Your task to perform on an android device: toggle wifi Image 0: 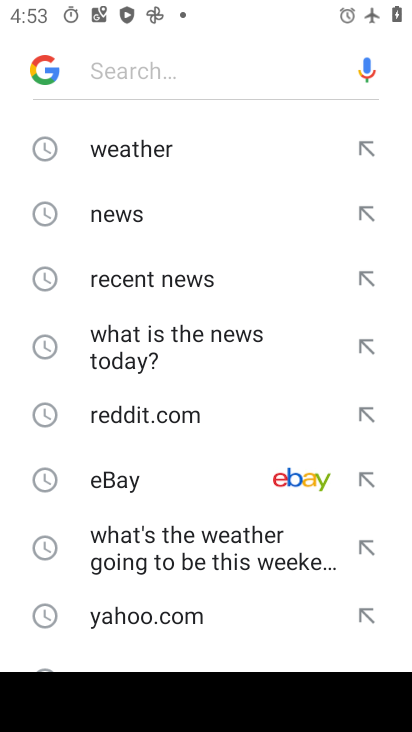
Step 0: press home button
Your task to perform on an android device: toggle wifi Image 1: 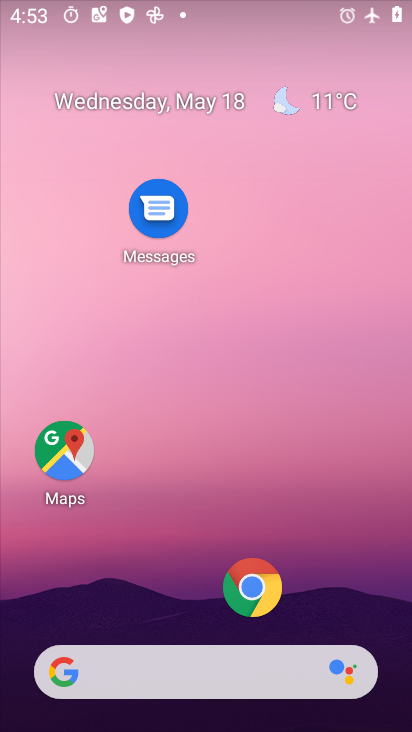
Step 1: drag from (236, 604) to (265, 326)
Your task to perform on an android device: toggle wifi Image 2: 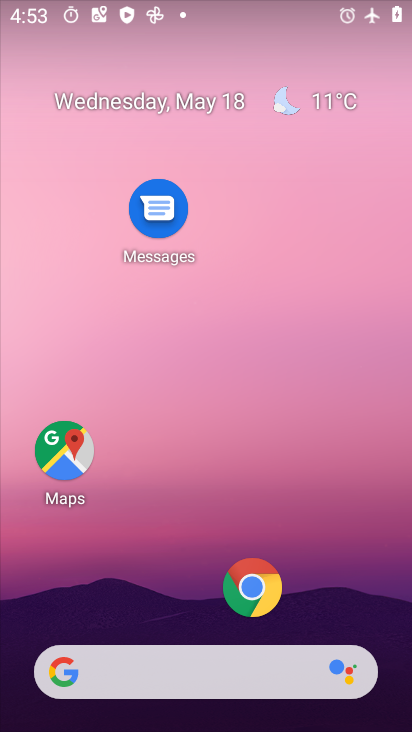
Step 2: drag from (333, 536) to (325, 102)
Your task to perform on an android device: toggle wifi Image 3: 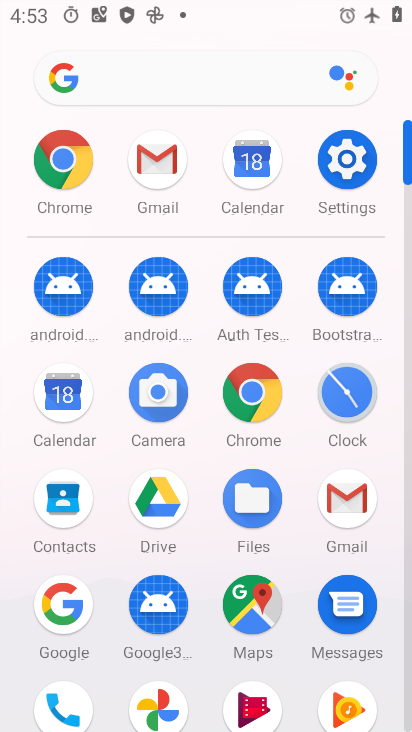
Step 3: click (354, 183)
Your task to perform on an android device: toggle wifi Image 4: 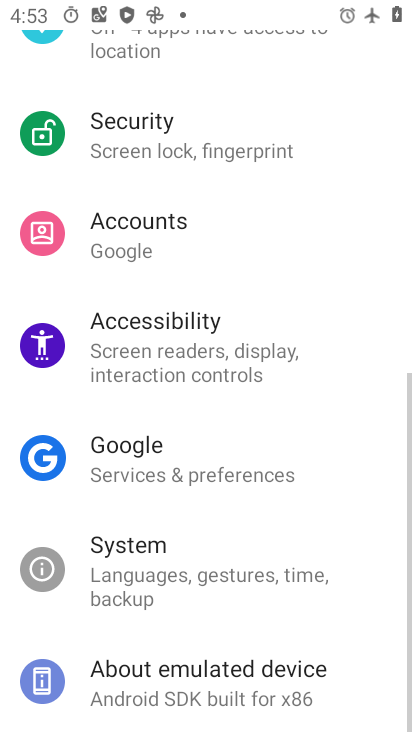
Step 4: drag from (274, 181) to (268, 616)
Your task to perform on an android device: toggle wifi Image 5: 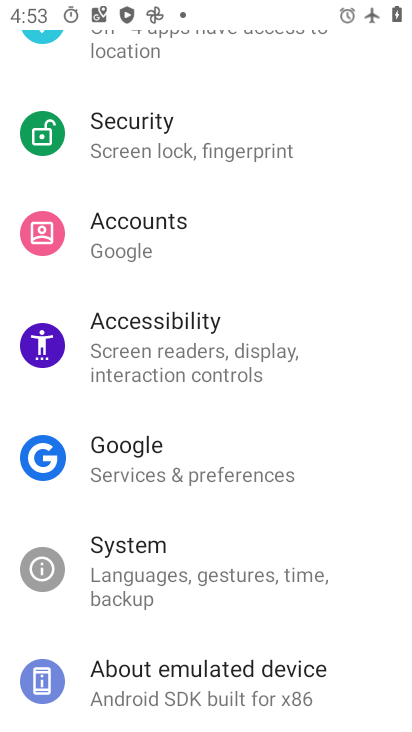
Step 5: drag from (264, 181) to (210, 654)
Your task to perform on an android device: toggle wifi Image 6: 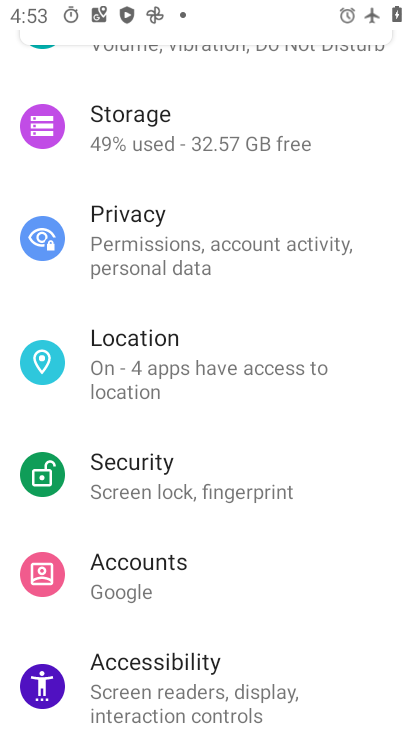
Step 6: drag from (267, 220) to (32, 724)
Your task to perform on an android device: toggle wifi Image 7: 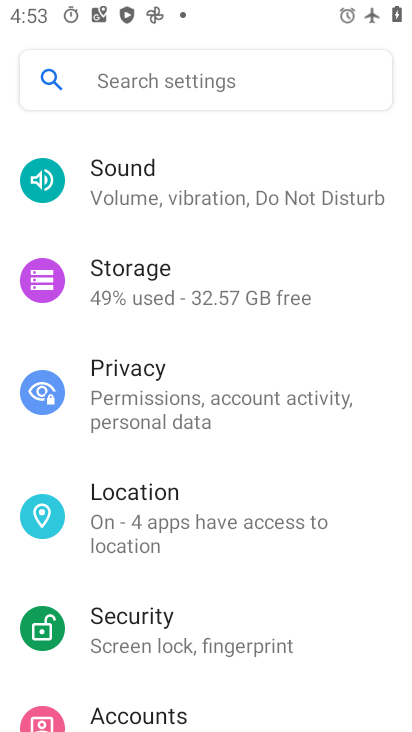
Step 7: drag from (164, 259) to (82, 680)
Your task to perform on an android device: toggle wifi Image 8: 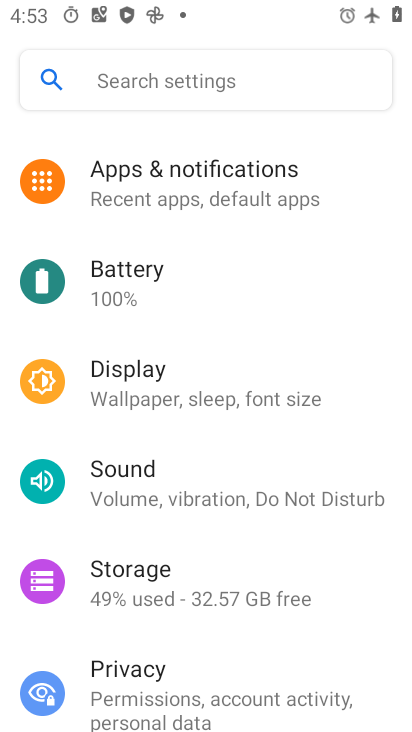
Step 8: drag from (235, 188) to (176, 701)
Your task to perform on an android device: toggle wifi Image 9: 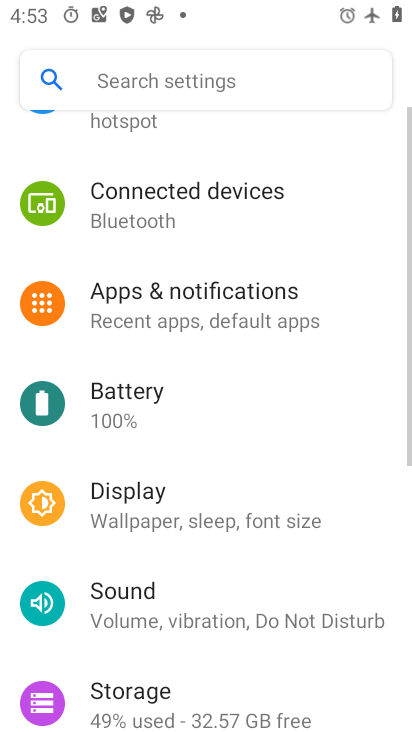
Step 9: drag from (219, 259) to (155, 473)
Your task to perform on an android device: toggle wifi Image 10: 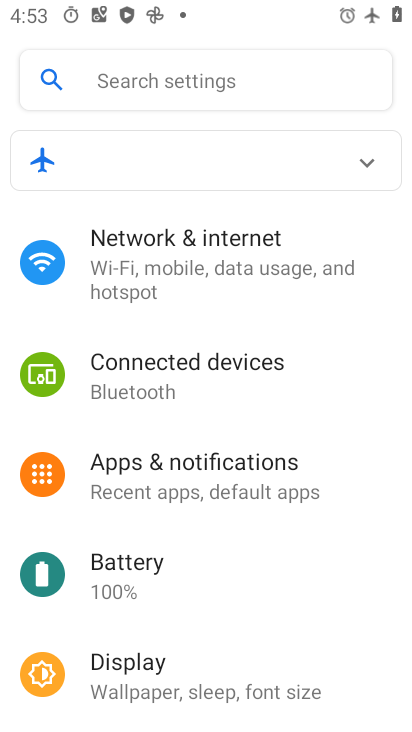
Step 10: click (289, 278)
Your task to perform on an android device: toggle wifi Image 11: 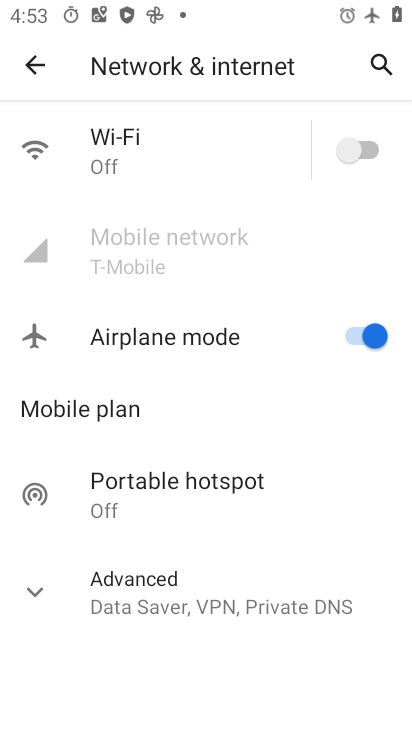
Step 11: click (360, 152)
Your task to perform on an android device: toggle wifi Image 12: 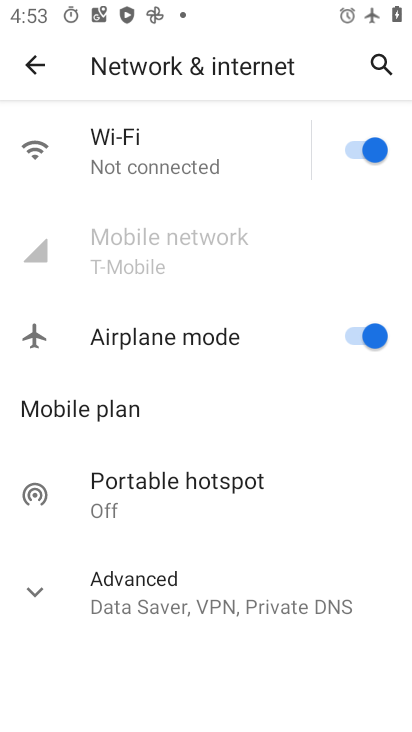
Step 12: task complete